Your task to perform on an android device: What is the recent news? Image 0: 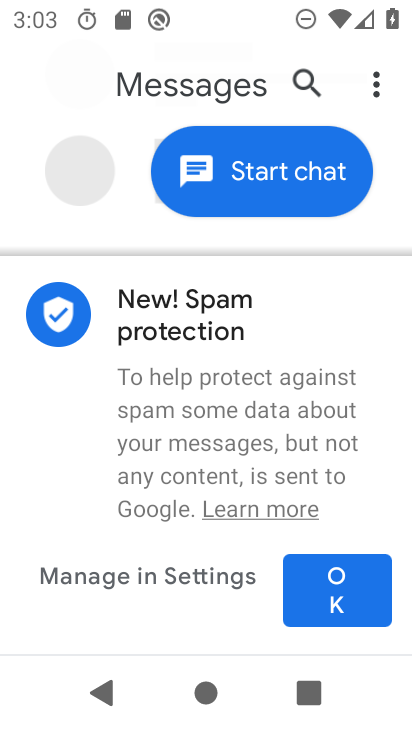
Step 0: press home button
Your task to perform on an android device: What is the recent news? Image 1: 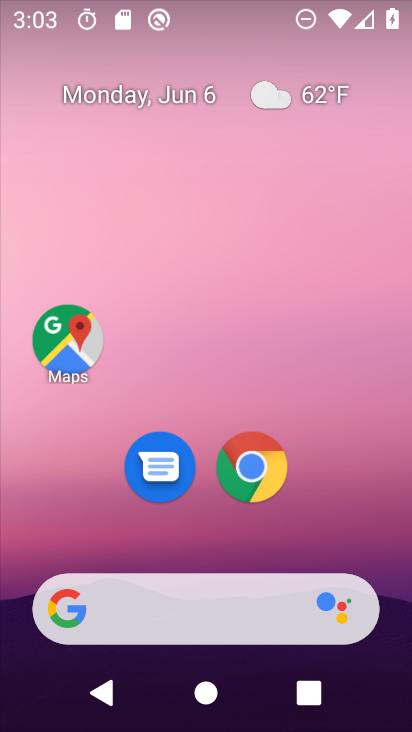
Step 1: drag from (207, 555) to (181, 180)
Your task to perform on an android device: What is the recent news? Image 2: 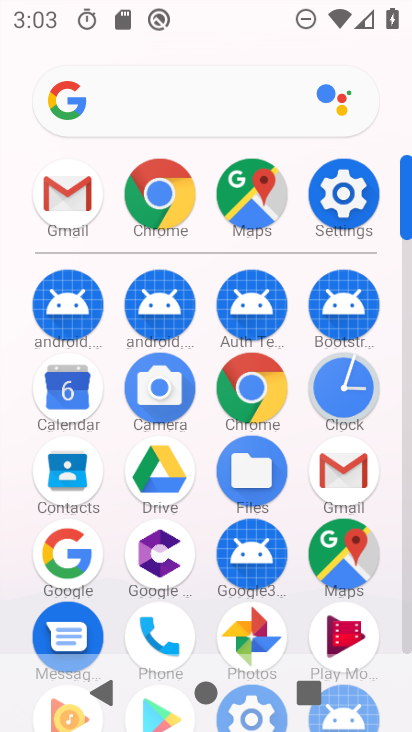
Step 2: click (68, 568)
Your task to perform on an android device: What is the recent news? Image 3: 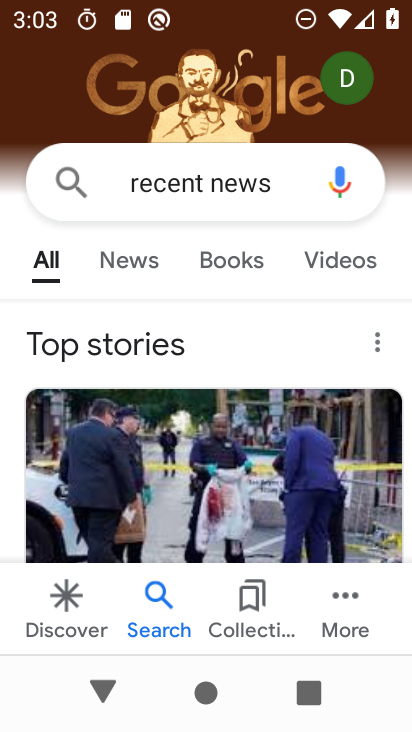
Step 3: task complete